Your task to perform on an android device: See recent photos Image 0: 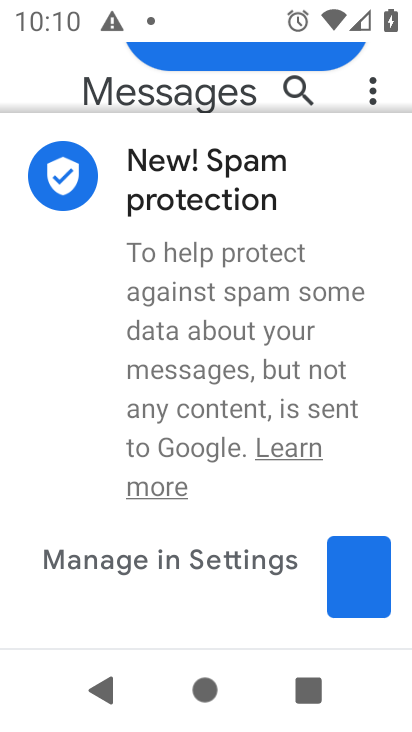
Step 0: press home button
Your task to perform on an android device: See recent photos Image 1: 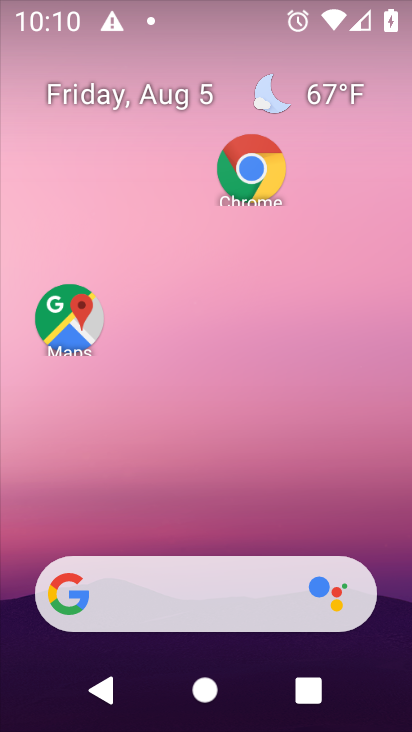
Step 1: drag from (187, 474) to (159, 138)
Your task to perform on an android device: See recent photos Image 2: 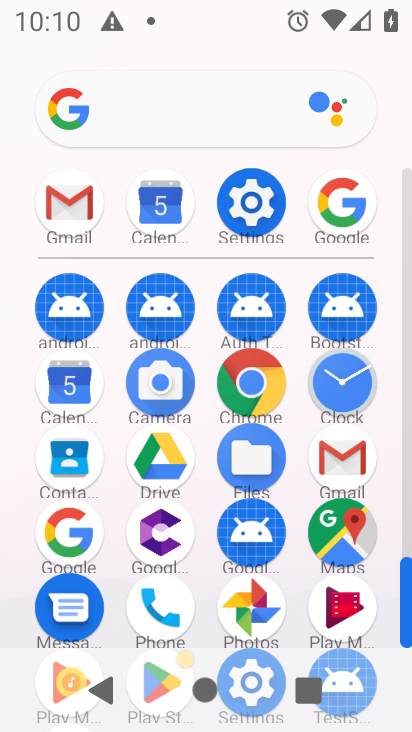
Step 2: click (235, 590)
Your task to perform on an android device: See recent photos Image 3: 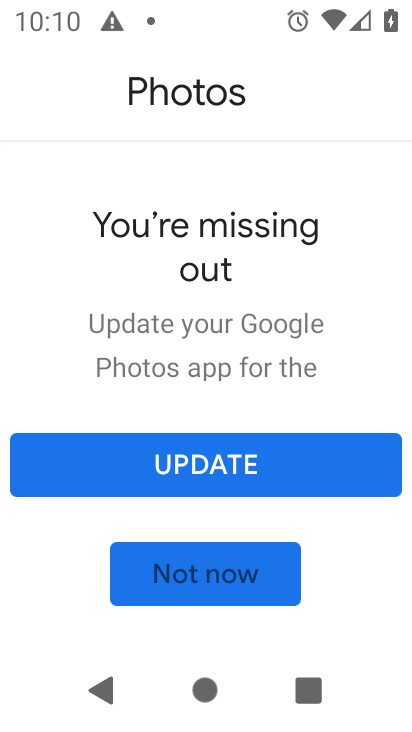
Step 3: click (235, 575)
Your task to perform on an android device: See recent photos Image 4: 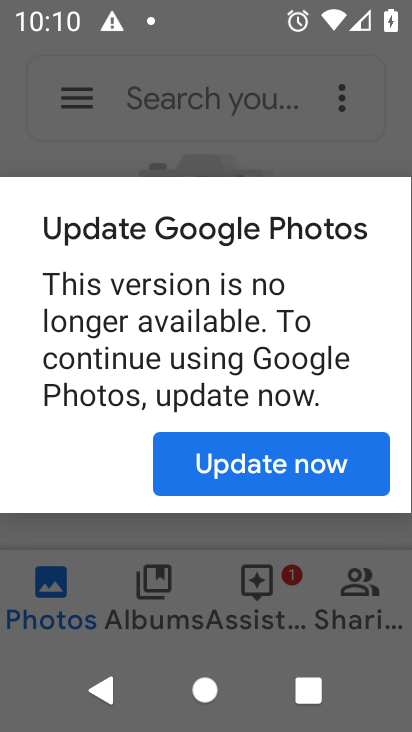
Step 4: click (262, 455)
Your task to perform on an android device: See recent photos Image 5: 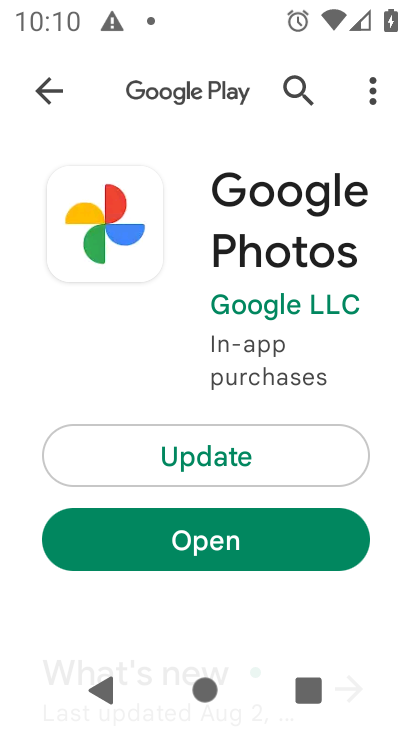
Step 5: click (236, 552)
Your task to perform on an android device: See recent photos Image 6: 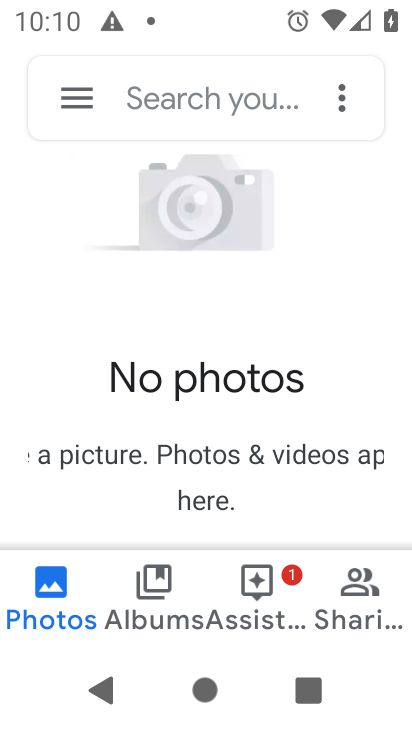
Step 6: task complete